Your task to perform on an android device: turn on the 12-hour format for clock Image 0: 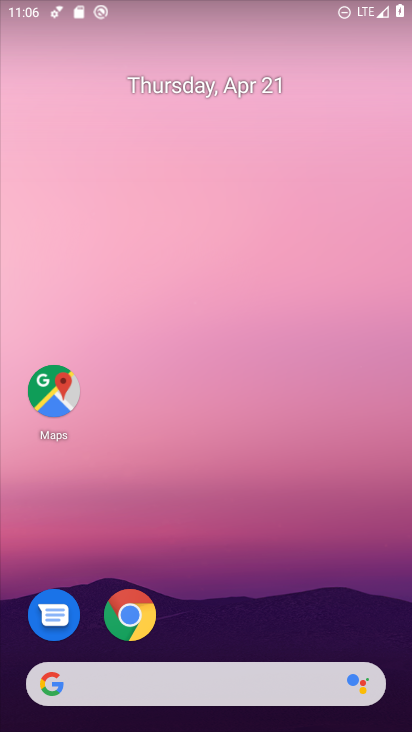
Step 0: press home button
Your task to perform on an android device: turn on the 12-hour format for clock Image 1: 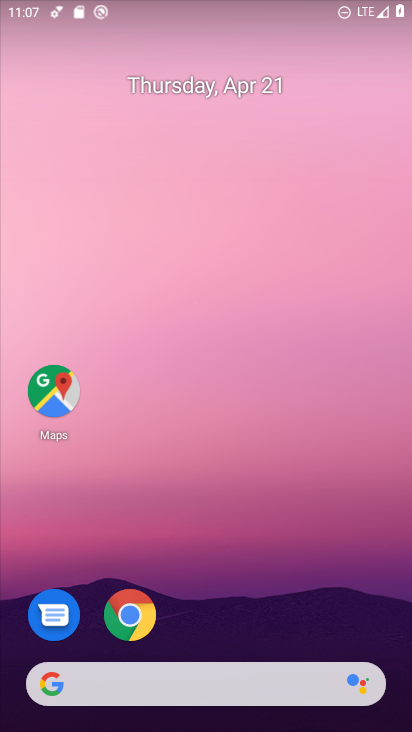
Step 1: drag from (225, 644) to (220, 139)
Your task to perform on an android device: turn on the 12-hour format for clock Image 2: 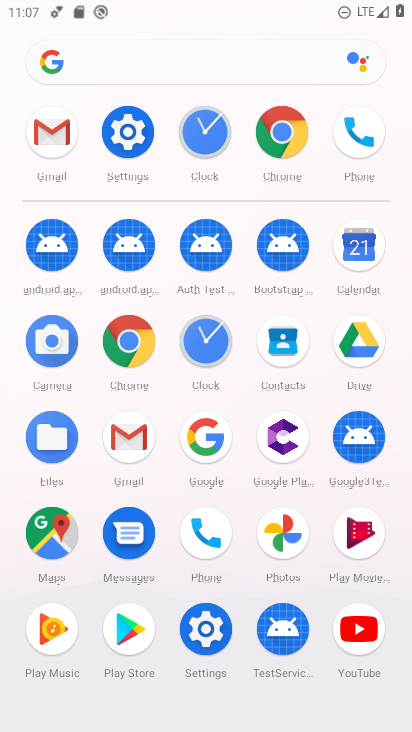
Step 2: click (204, 329)
Your task to perform on an android device: turn on the 12-hour format for clock Image 3: 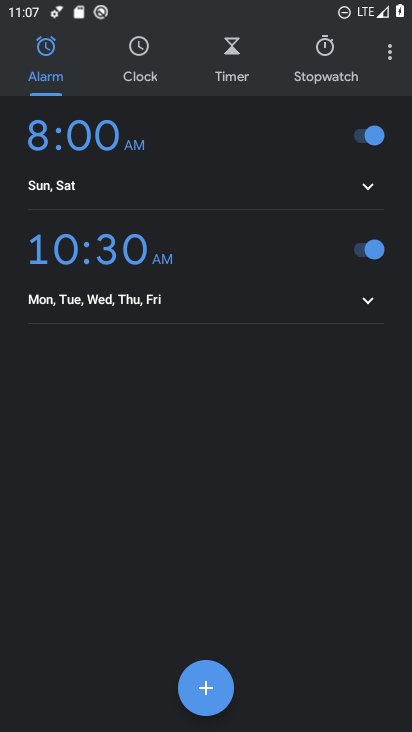
Step 3: click (387, 46)
Your task to perform on an android device: turn on the 12-hour format for clock Image 4: 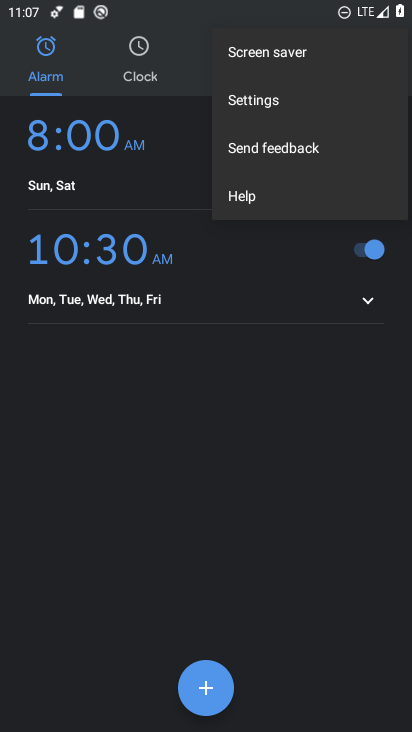
Step 4: click (294, 102)
Your task to perform on an android device: turn on the 12-hour format for clock Image 5: 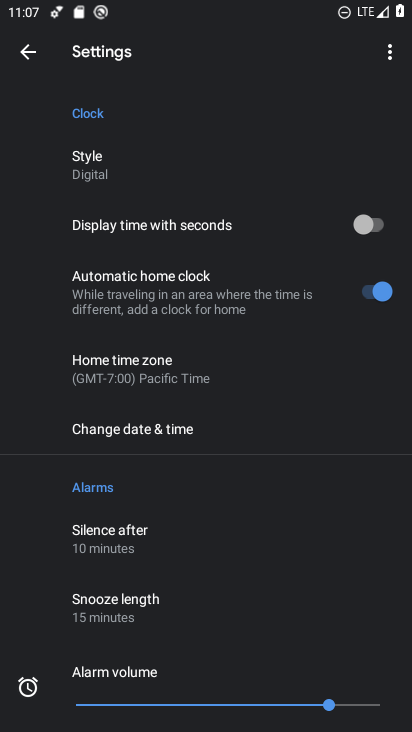
Step 5: drag from (202, 595) to (213, 174)
Your task to perform on an android device: turn on the 12-hour format for clock Image 6: 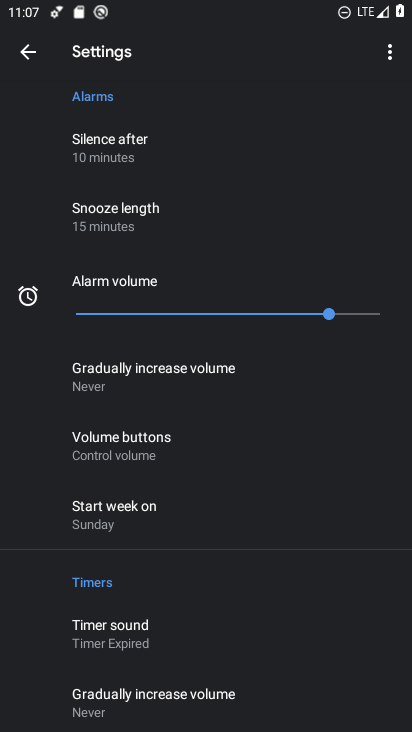
Step 6: drag from (211, 175) to (228, 731)
Your task to perform on an android device: turn on the 12-hour format for clock Image 7: 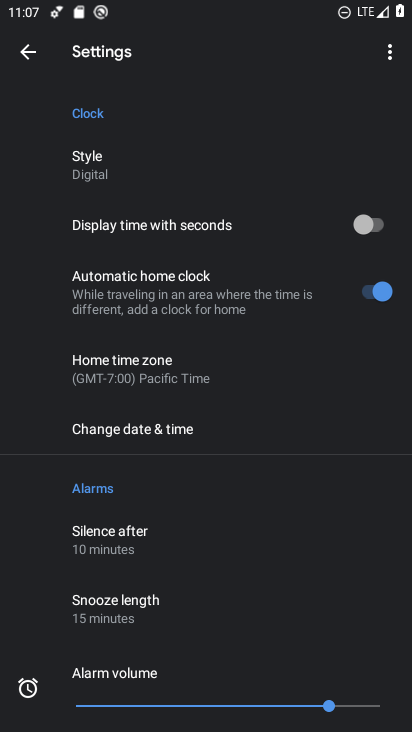
Step 7: click (212, 429)
Your task to perform on an android device: turn on the 12-hour format for clock Image 8: 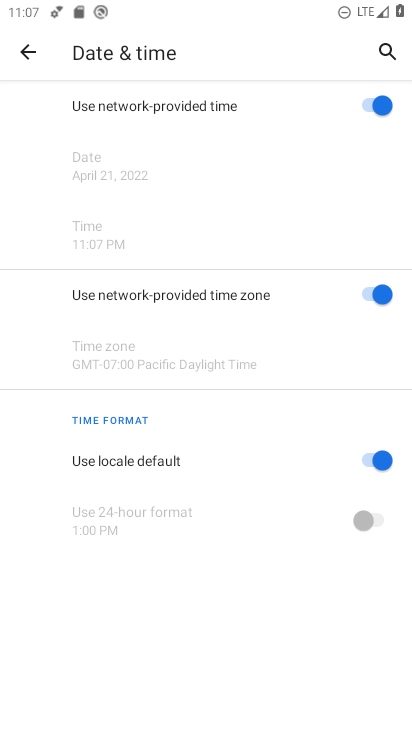
Step 8: click (374, 462)
Your task to perform on an android device: turn on the 12-hour format for clock Image 9: 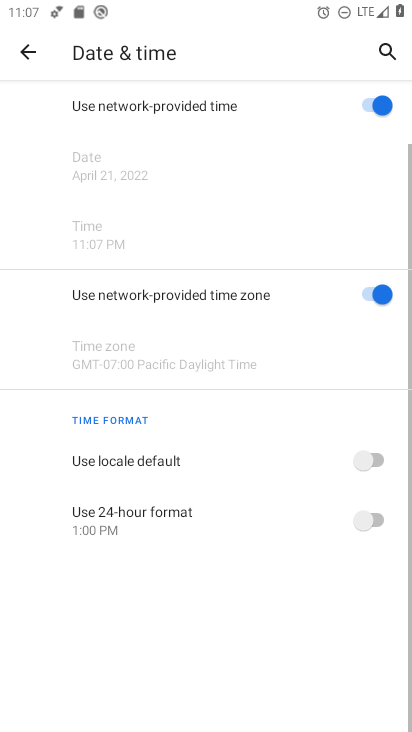
Step 9: click (375, 519)
Your task to perform on an android device: turn on the 12-hour format for clock Image 10: 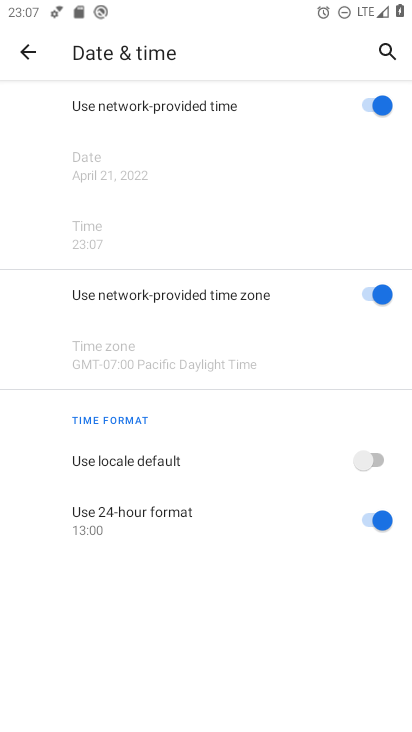
Step 10: task complete